Your task to perform on an android device: delete browsing data in the chrome app Image 0: 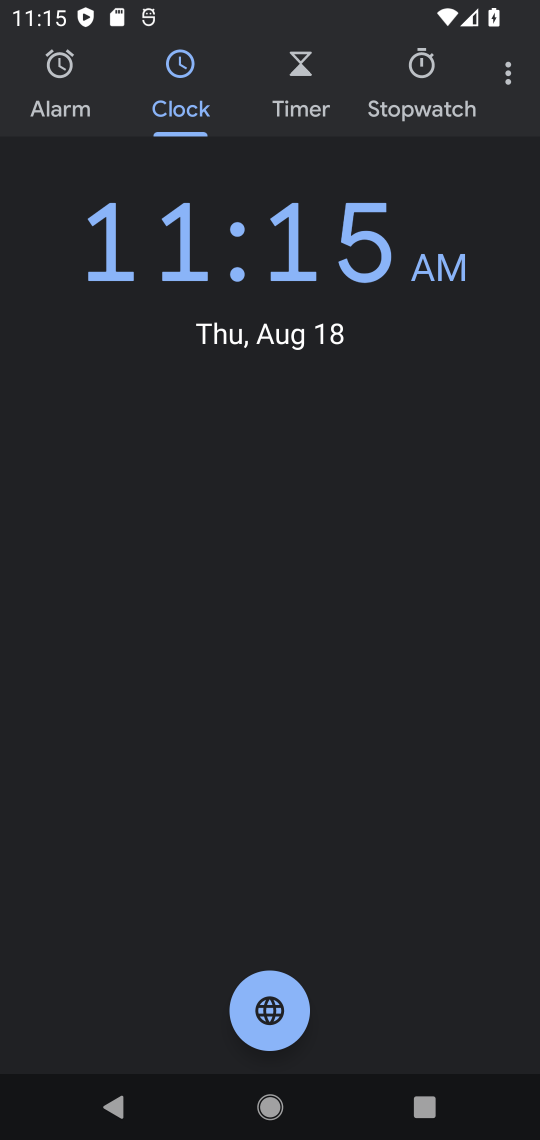
Step 0: press home button
Your task to perform on an android device: delete browsing data in the chrome app Image 1: 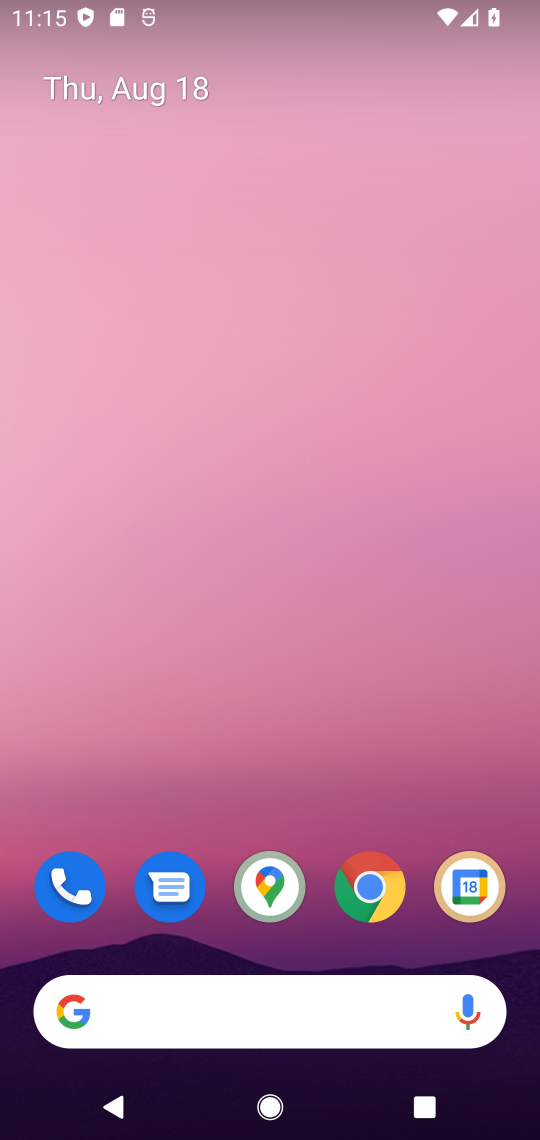
Step 1: click (362, 893)
Your task to perform on an android device: delete browsing data in the chrome app Image 2: 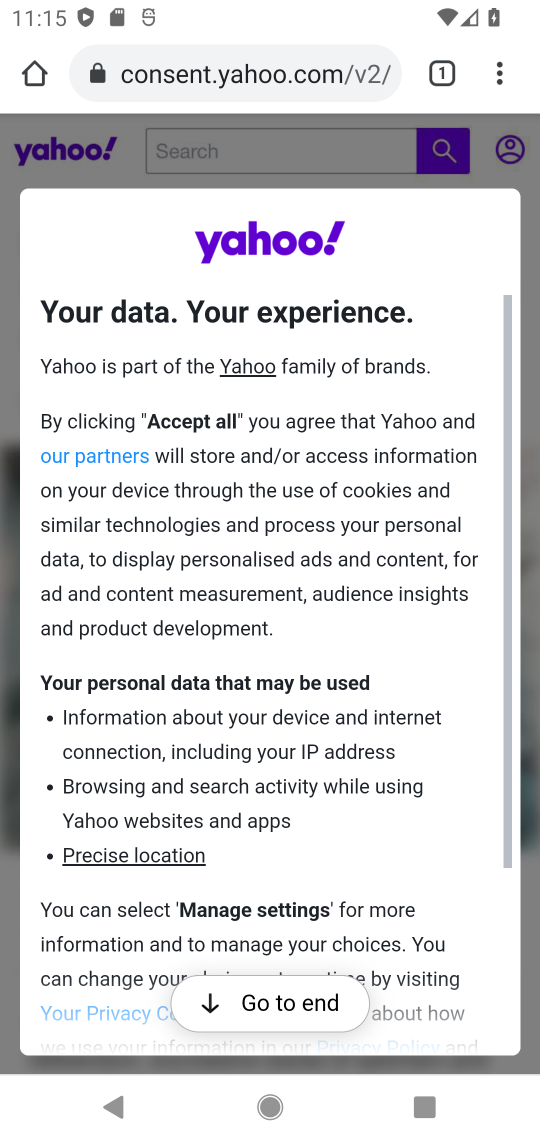
Step 2: click (503, 77)
Your task to perform on an android device: delete browsing data in the chrome app Image 3: 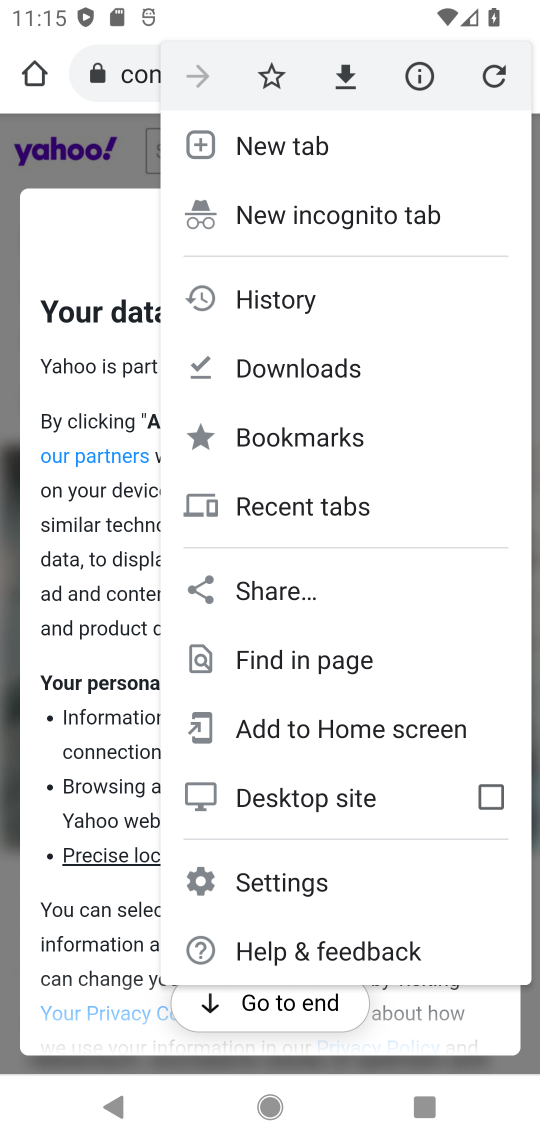
Step 3: click (252, 299)
Your task to perform on an android device: delete browsing data in the chrome app Image 4: 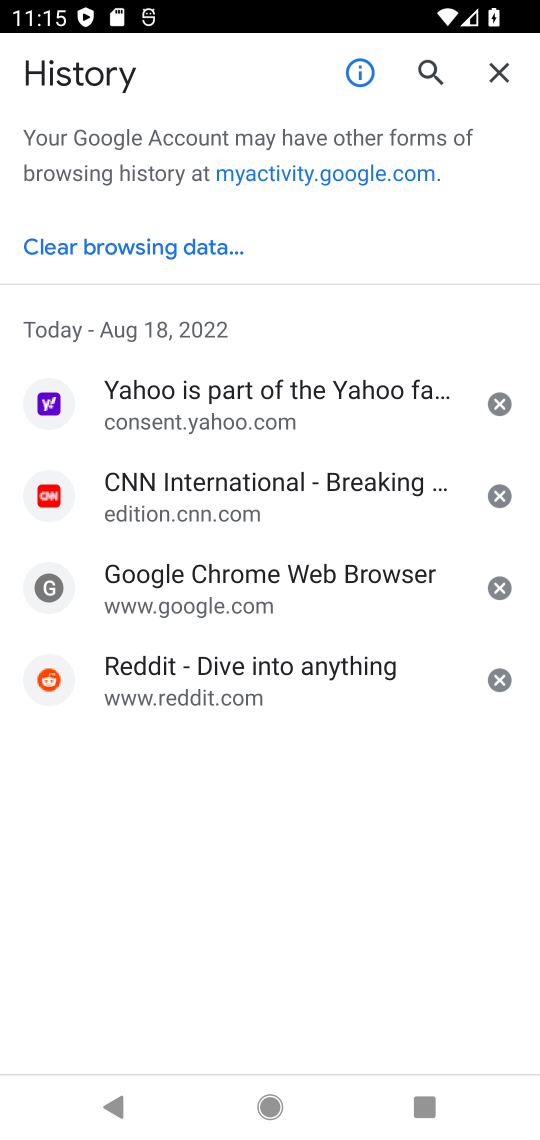
Step 4: click (107, 242)
Your task to perform on an android device: delete browsing data in the chrome app Image 5: 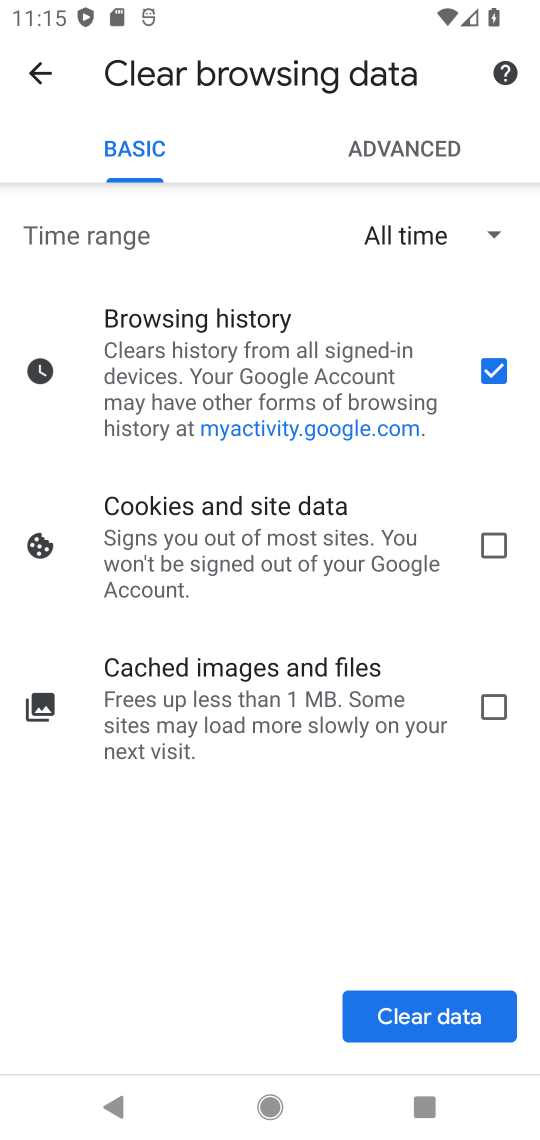
Step 5: click (417, 1014)
Your task to perform on an android device: delete browsing data in the chrome app Image 6: 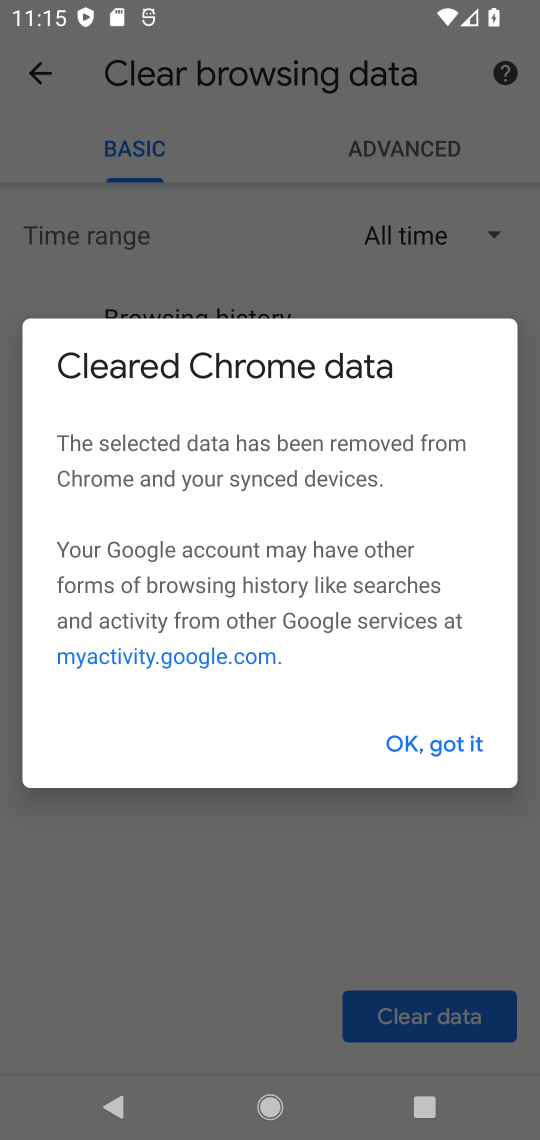
Step 6: click (420, 756)
Your task to perform on an android device: delete browsing data in the chrome app Image 7: 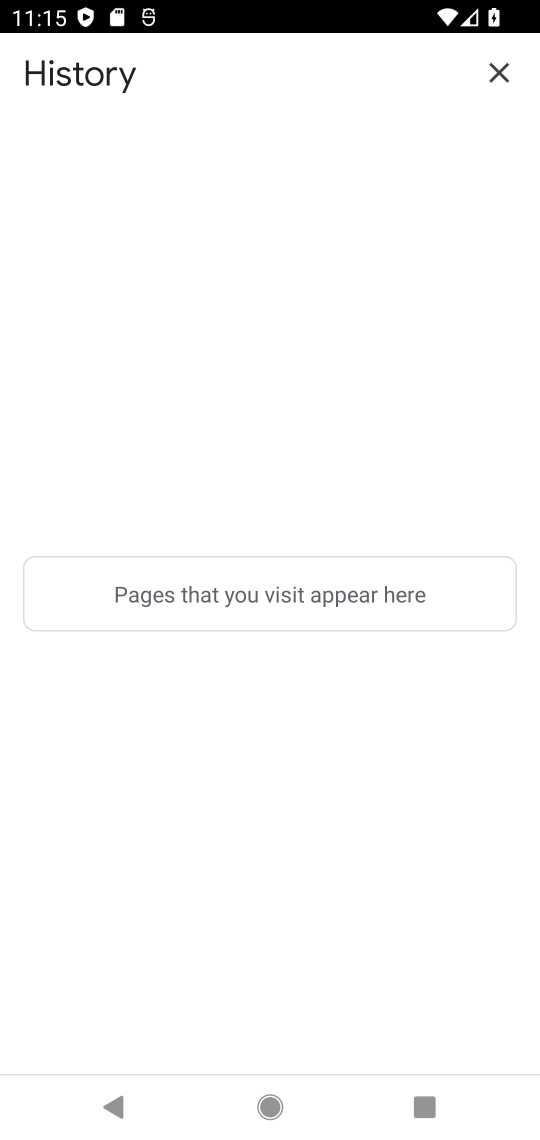
Step 7: task complete